Your task to perform on an android device: Go to Android settings Image 0: 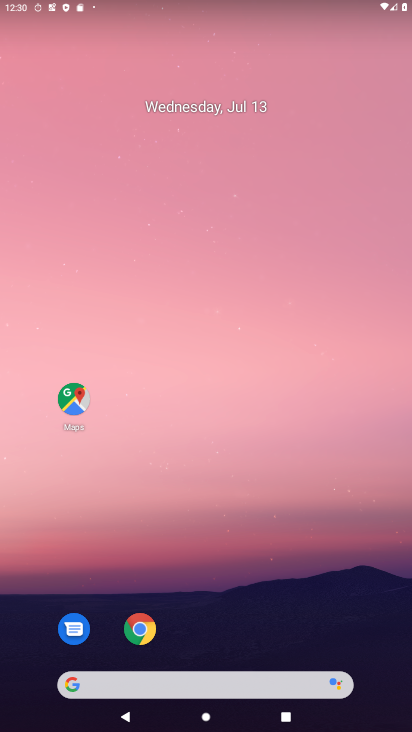
Step 0: drag from (189, 628) to (157, 171)
Your task to perform on an android device: Go to Android settings Image 1: 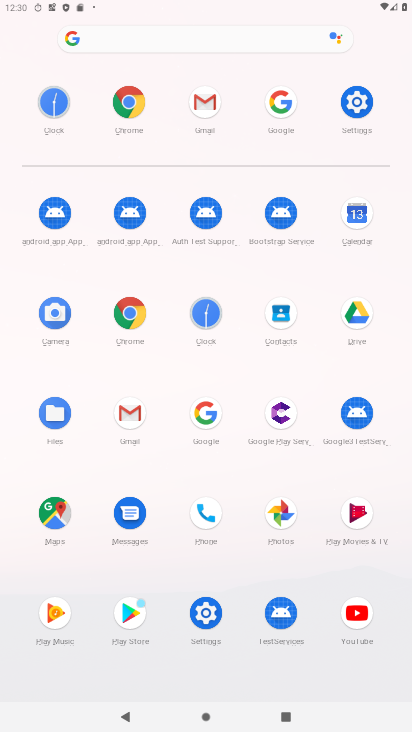
Step 1: click (353, 97)
Your task to perform on an android device: Go to Android settings Image 2: 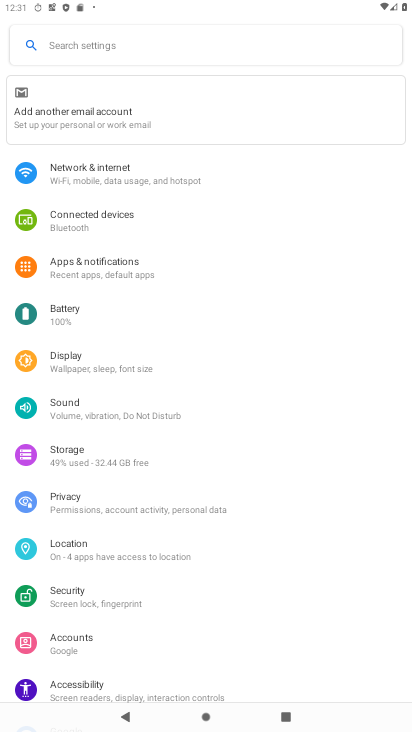
Step 2: task complete